Your task to perform on an android device: turn off airplane mode Image 0: 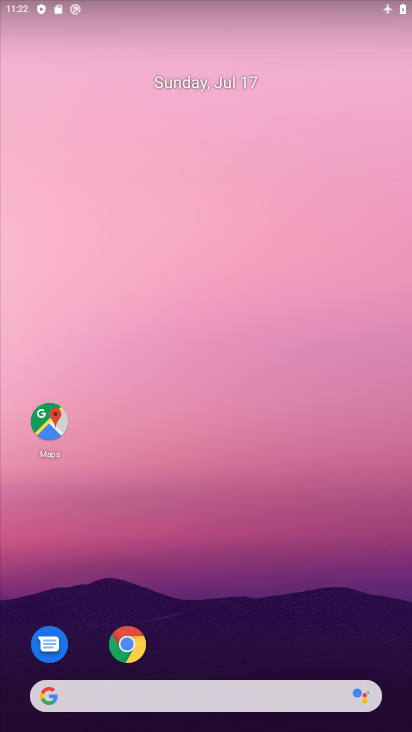
Step 0: drag from (358, 462) to (315, 61)
Your task to perform on an android device: turn off airplane mode Image 1: 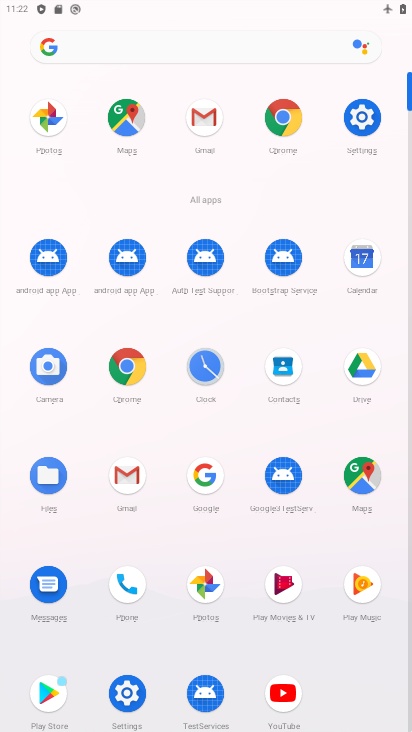
Step 1: click (344, 115)
Your task to perform on an android device: turn off airplane mode Image 2: 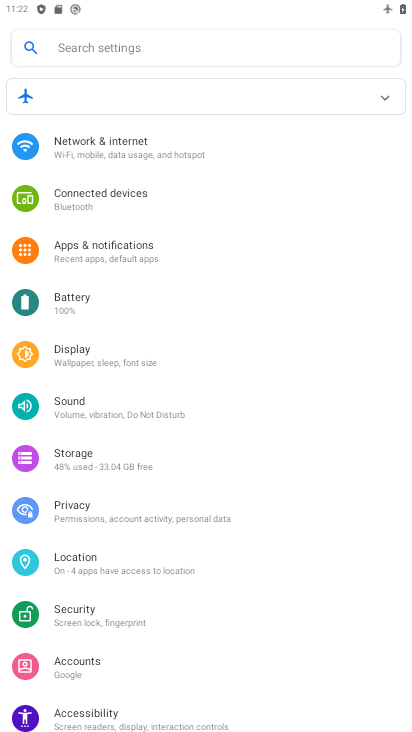
Step 2: click (122, 139)
Your task to perform on an android device: turn off airplane mode Image 3: 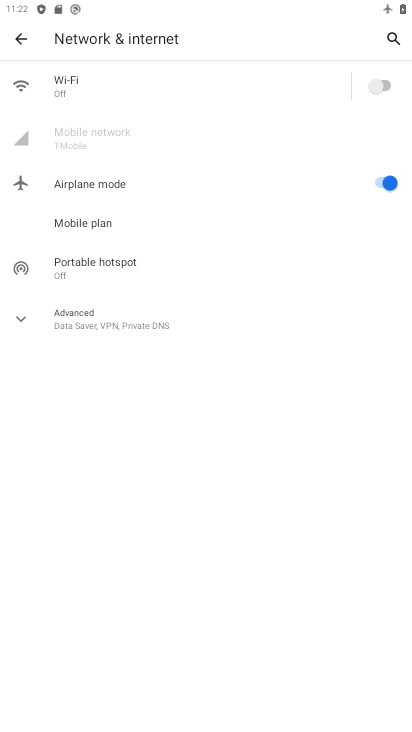
Step 3: click (390, 186)
Your task to perform on an android device: turn off airplane mode Image 4: 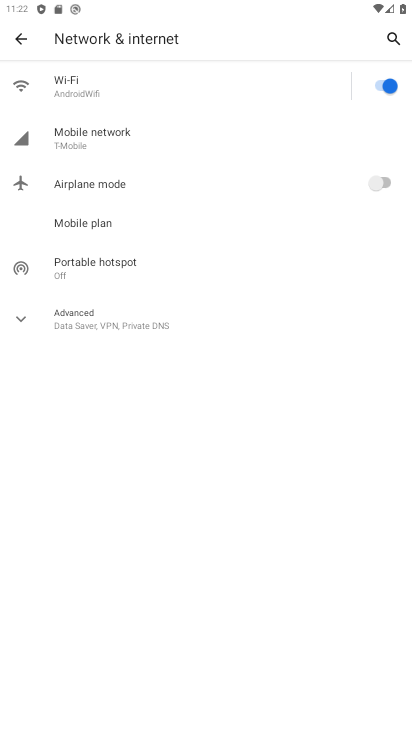
Step 4: task complete